Your task to perform on an android device: Go to ESPN.com Image 0: 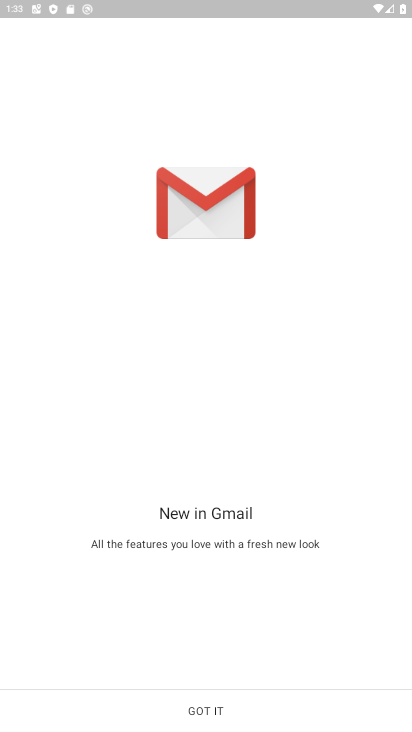
Step 0: press home button
Your task to perform on an android device: Go to ESPN.com Image 1: 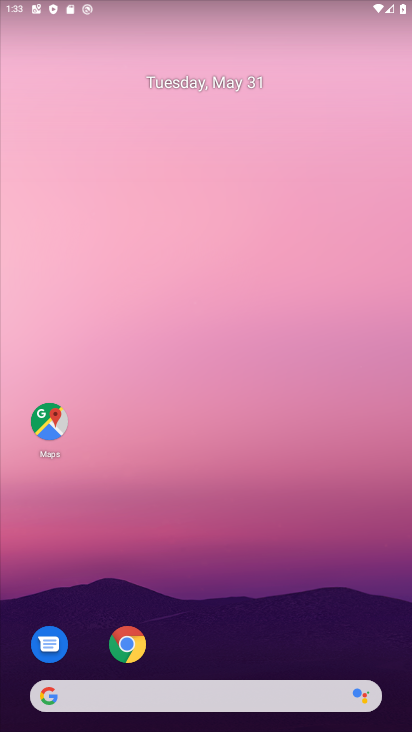
Step 1: click (122, 637)
Your task to perform on an android device: Go to ESPN.com Image 2: 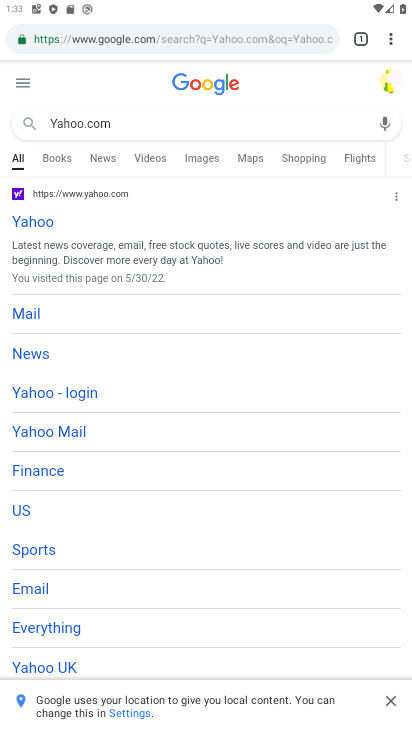
Step 2: click (326, 36)
Your task to perform on an android device: Go to ESPN.com Image 3: 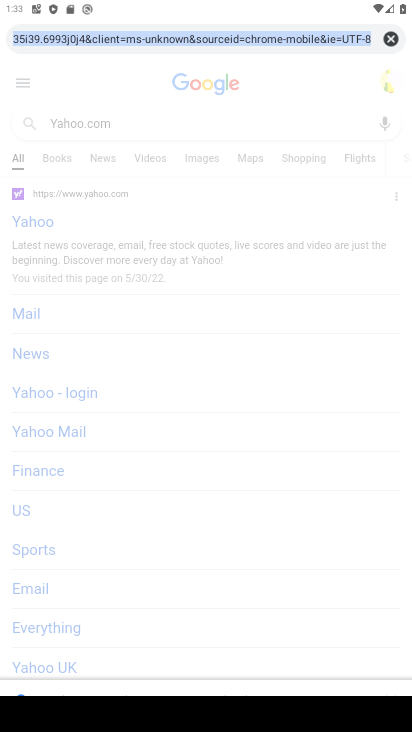
Step 3: click (394, 37)
Your task to perform on an android device: Go to ESPN.com Image 4: 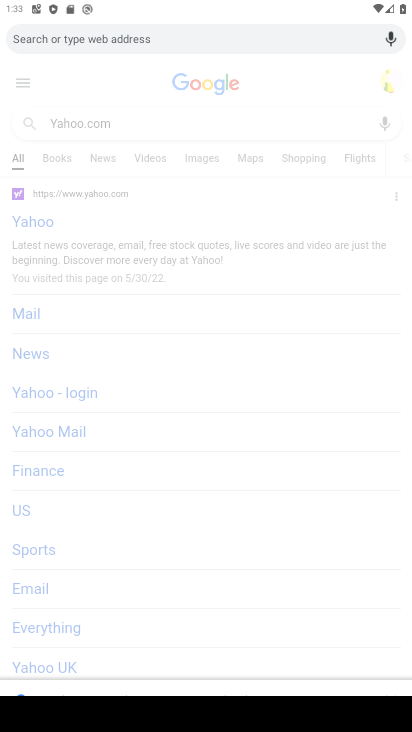
Step 4: type "ESPN.com"
Your task to perform on an android device: Go to ESPN.com Image 5: 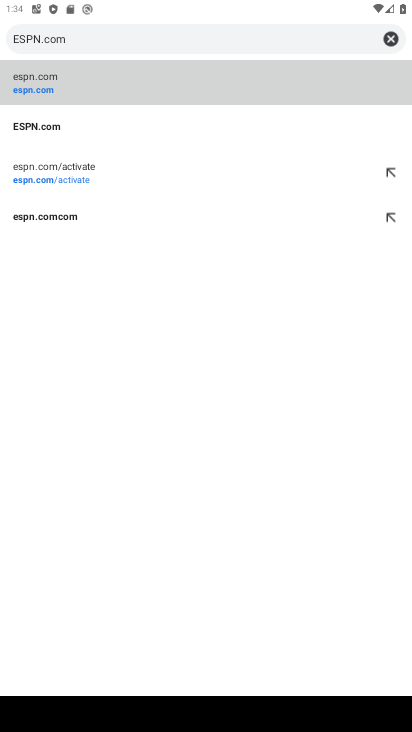
Step 5: click (50, 125)
Your task to perform on an android device: Go to ESPN.com Image 6: 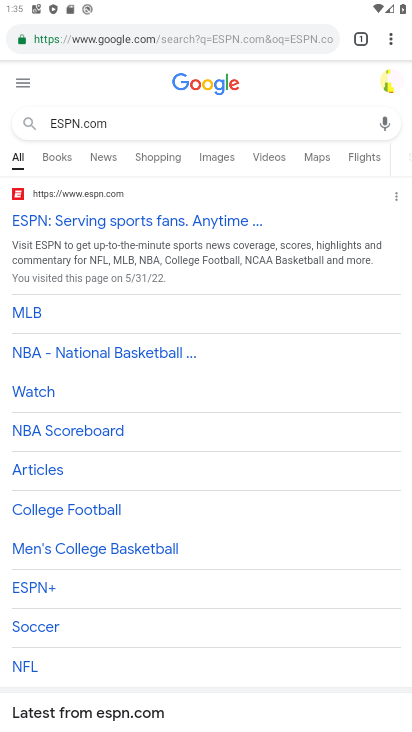
Step 6: task complete